Your task to perform on an android device: Go to privacy settings Image 0: 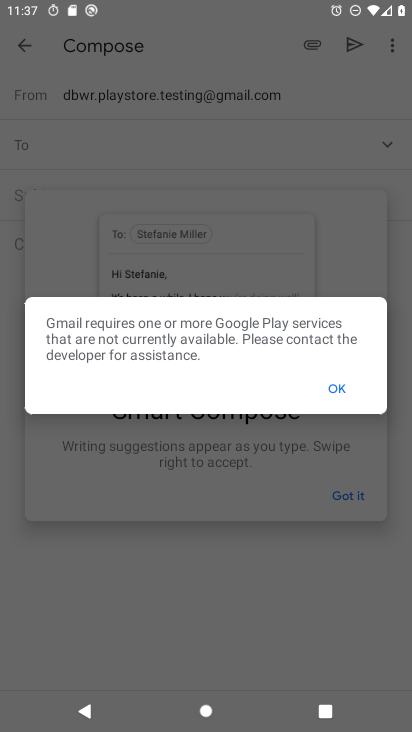
Step 0: press home button
Your task to perform on an android device: Go to privacy settings Image 1: 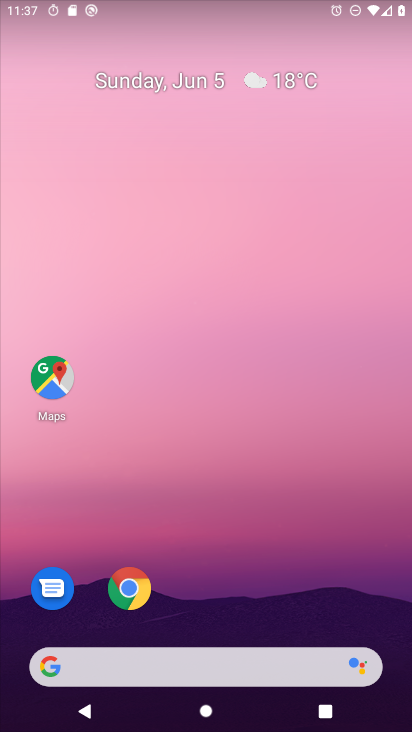
Step 1: drag from (309, 592) to (309, 217)
Your task to perform on an android device: Go to privacy settings Image 2: 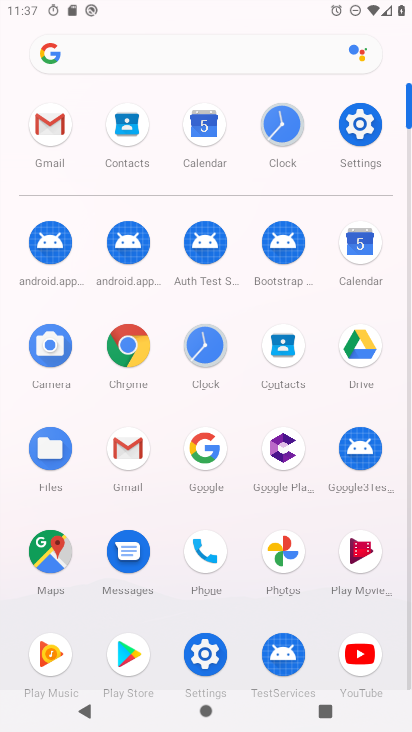
Step 2: click (362, 136)
Your task to perform on an android device: Go to privacy settings Image 3: 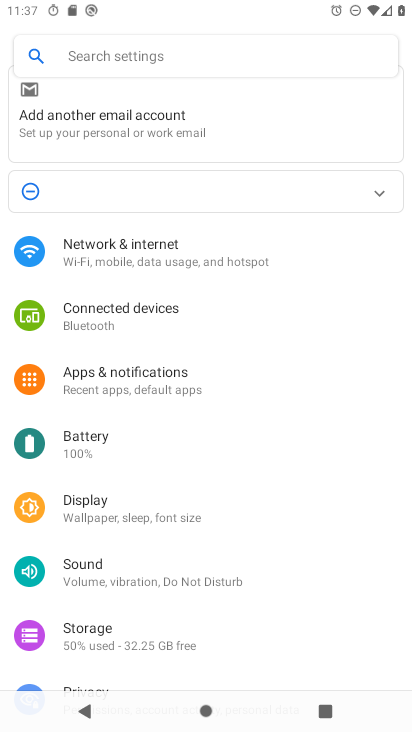
Step 3: drag from (338, 511) to (344, 378)
Your task to perform on an android device: Go to privacy settings Image 4: 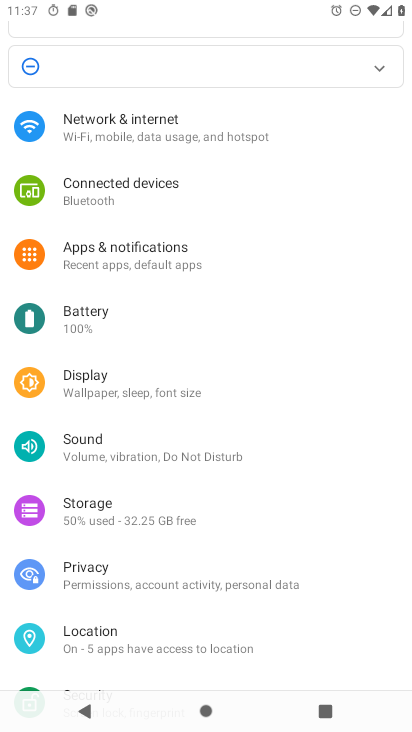
Step 4: drag from (362, 575) to (361, 356)
Your task to perform on an android device: Go to privacy settings Image 5: 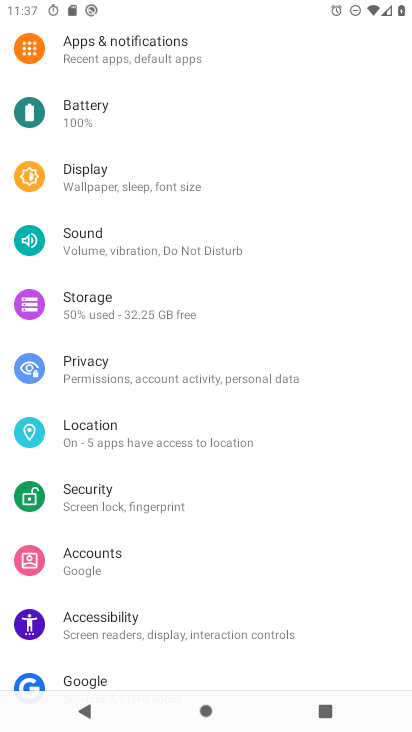
Step 5: drag from (352, 516) to (357, 301)
Your task to perform on an android device: Go to privacy settings Image 6: 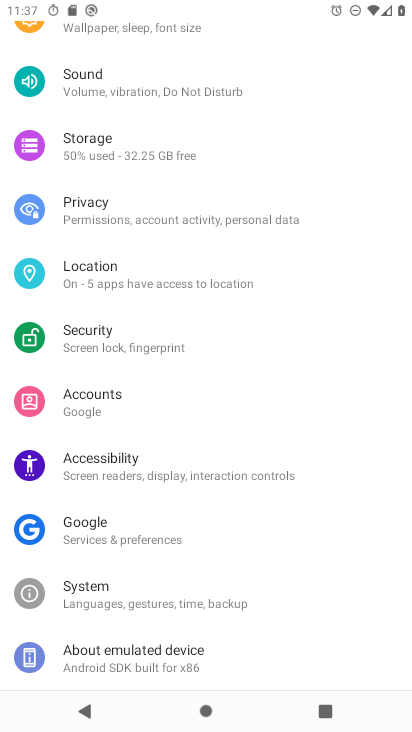
Step 6: drag from (337, 533) to (343, 311)
Your task to perform on an android device: Go to privacy settings Image 7: 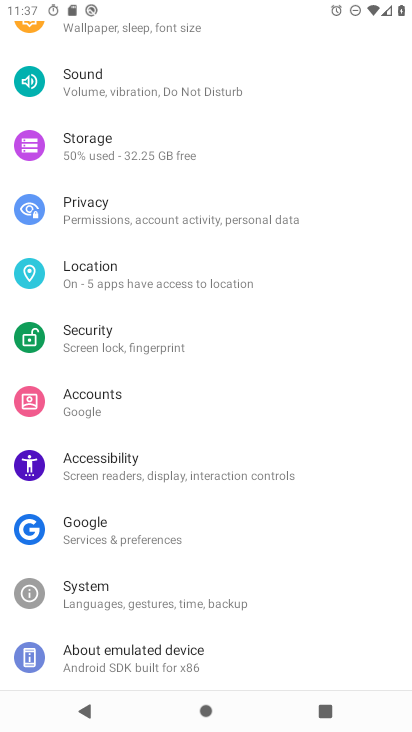
Step 7: drag from (339, 174) to (339, 471)
Your task to perform on an android device: Go to privacy settings Image 8: 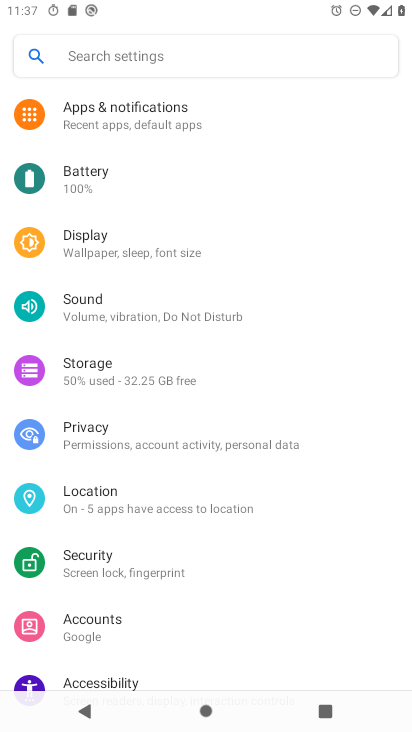
Step 8: drag from (349, 231) to (349, 395)
Your task to perform on an android device: Go to privacy settings Image 9: 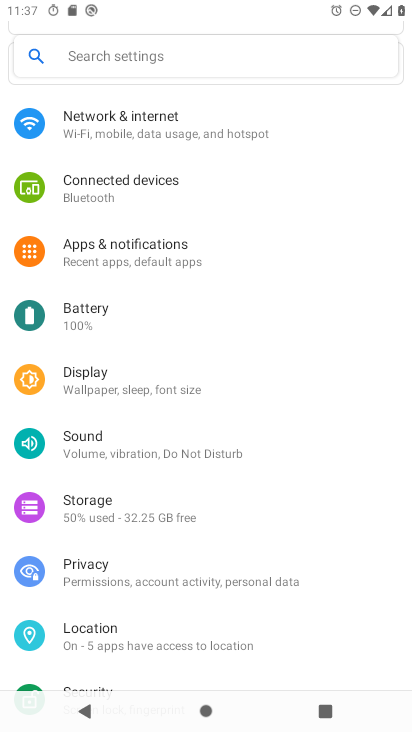
Step 9: click (176, 586)
Your task to perform on an android device: Go to privacy settings Image 10: 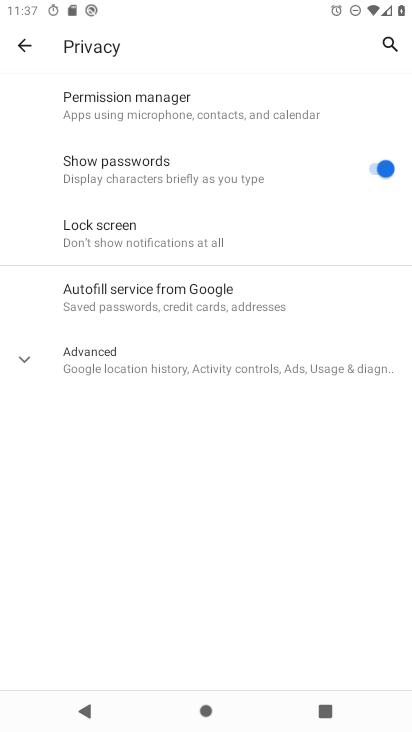
Step 10: click (126, 359)
Your task to perform on an android device: Go to privacy settings Image 11: 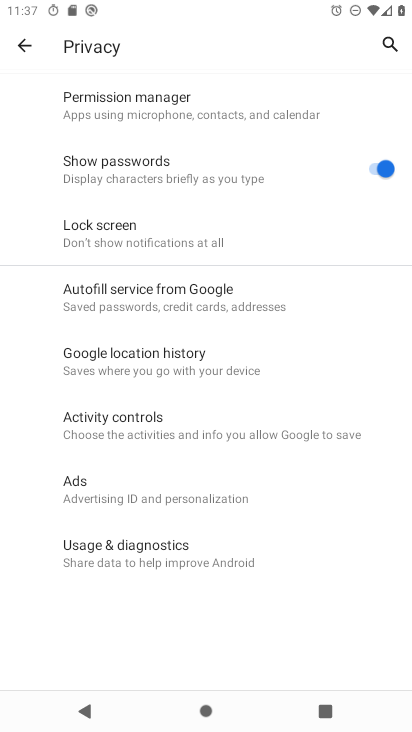
Step 11: task complete